Your task to perform on an android device: Open Google Chrome and click the shortcut for Amazon.com Image 0: 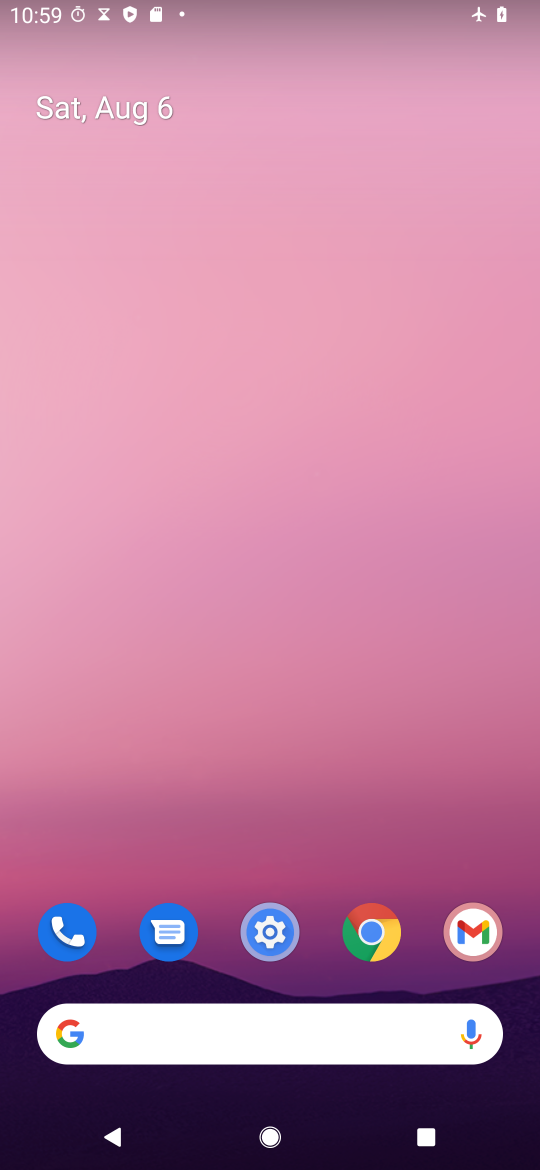
Step 0: click (372, 939)
Your task to perform on an android device: Open Google Chrome and click the shortcut for Amazon.com Image 1: 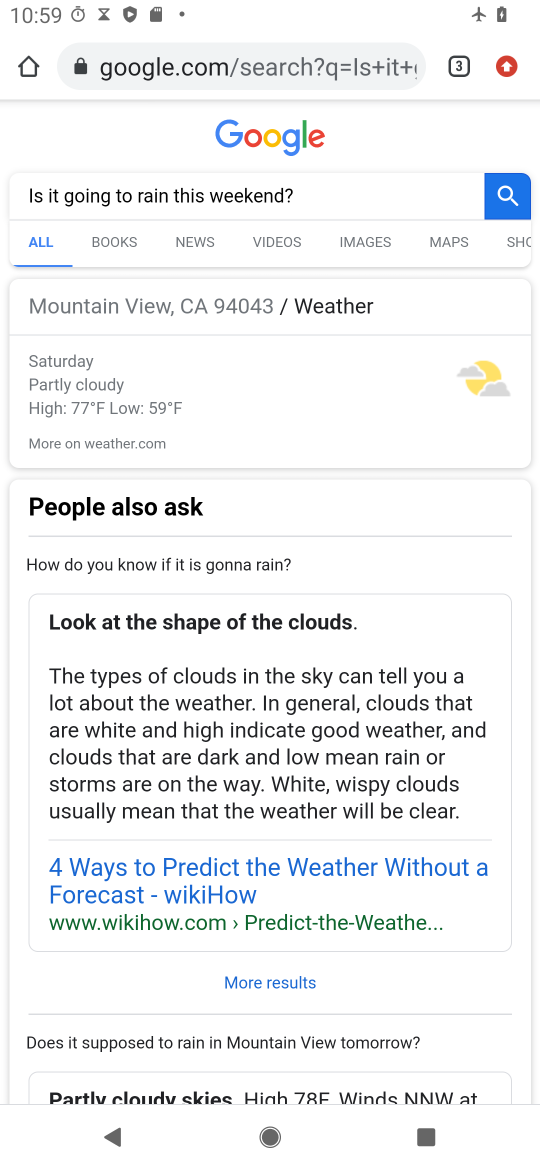
Step 1: click (387, 71)
Your task to perform on an android device: Open Google Chrome and click the shortcut for Amazon.com Image 2: 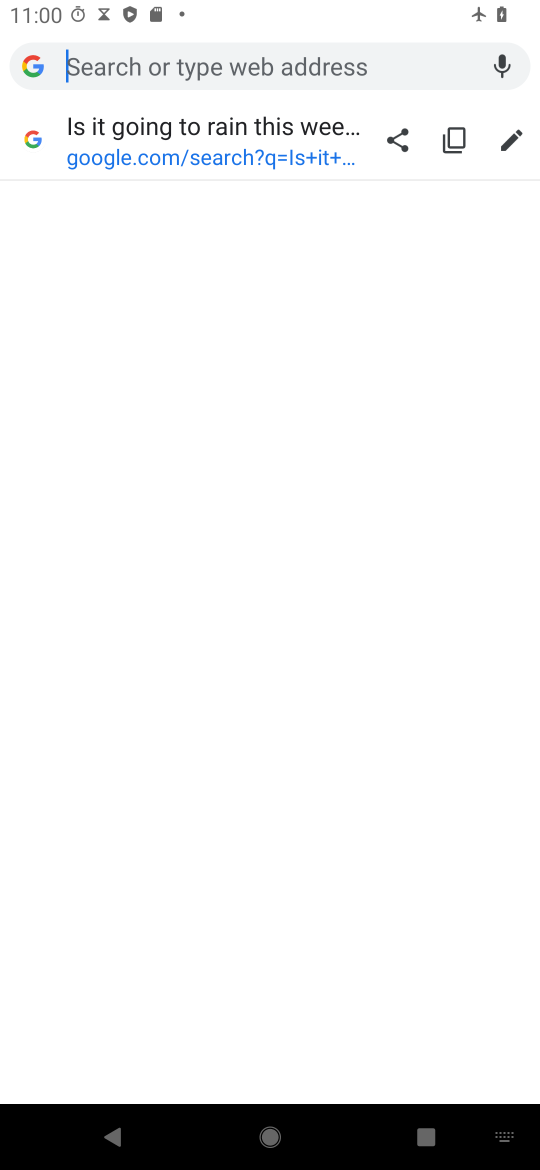
Step 2: type "Amazon.com"
Your task to perform on an android device: Open Google Chrome and click the shortcut for Amazon.com Image 3: 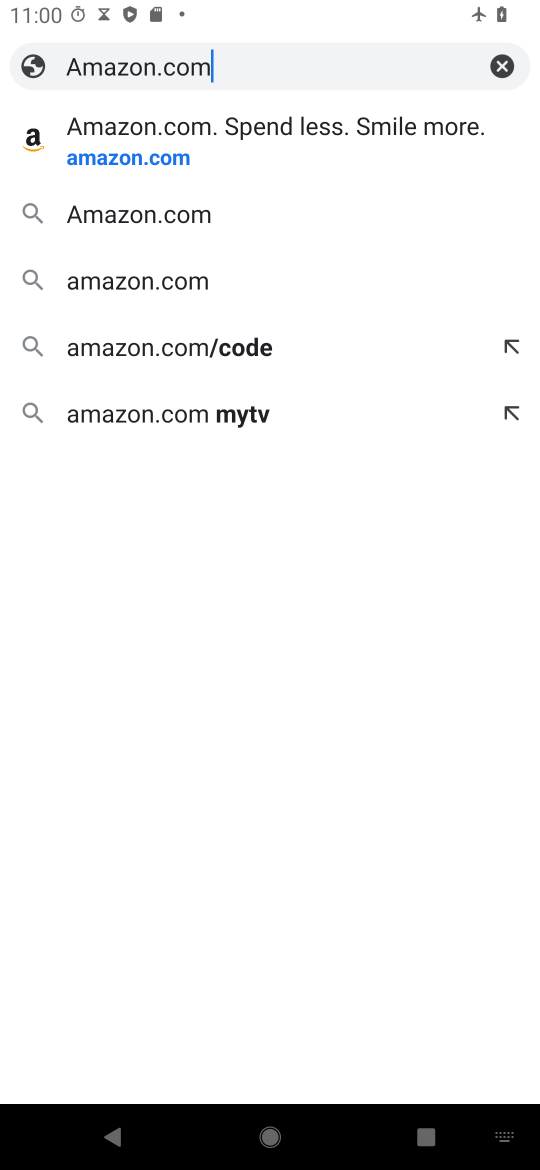
Step 3: click (160, 225)
Your task to perform on an android device: Open Google Chrome and click the shortcut for Amazon.com Image 4: 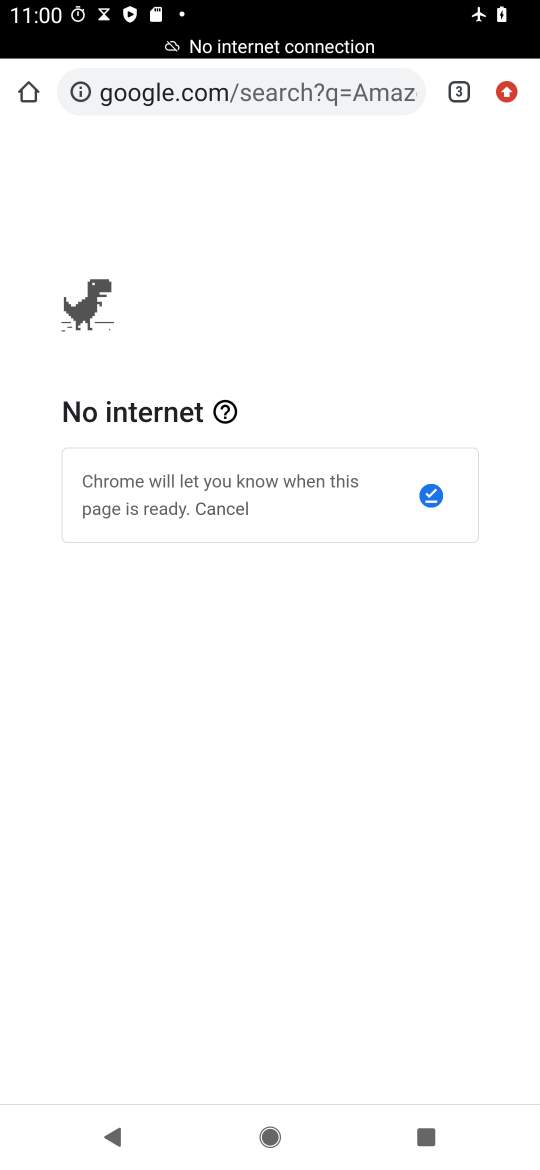
Step 4: task complete